Your task to perform on an android device: Add "rayovac triple a" to the cart on amazon Image 0: 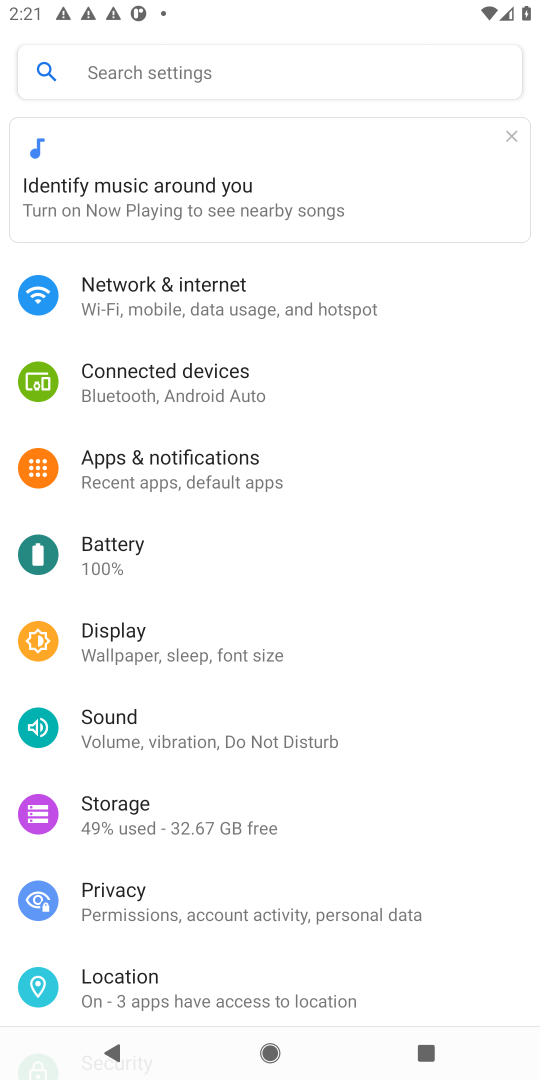
Step 0: press home button
Your task to perform on an android device: Add "rayovac triple a" to the cart on amazon Image 1: 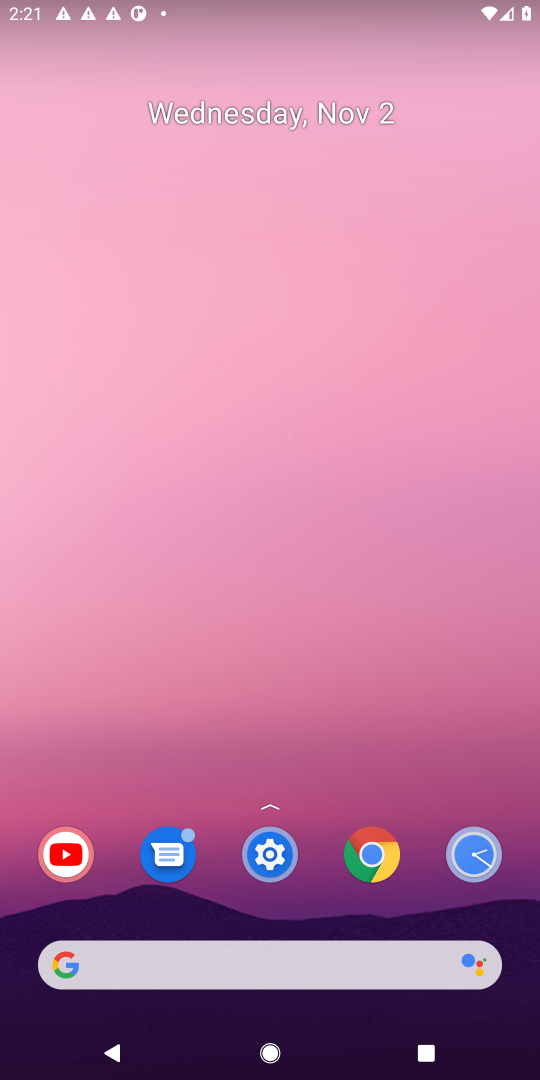
Step 1: click (289, 944)
Your task to perform on an android device: Add "rayovac triple a" to the cart on amazon Image 2: 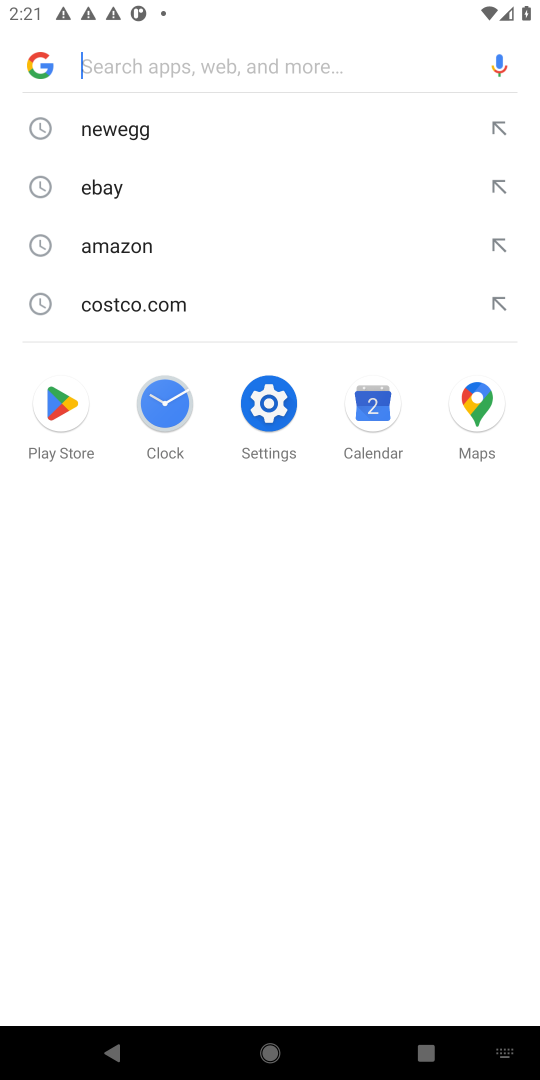
Step 2: type "amazon"
Your task to perform on an android device: Add "rayovac triple a" to the cart on amazon Image 3: 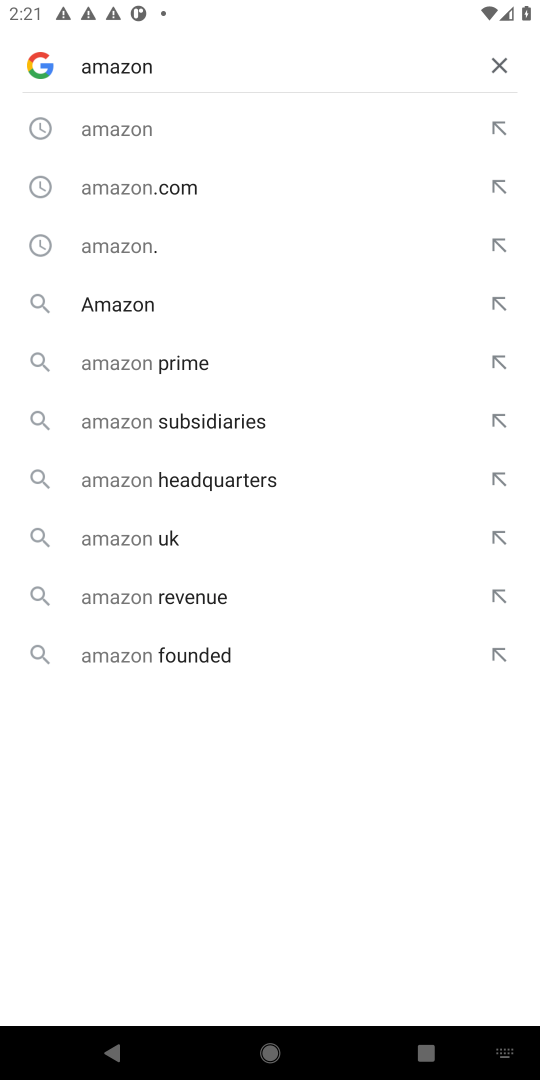
Step 3: press enter
Your task to perform on an android device: Add "rayovac triple a" to the cart on amazon Image 4: 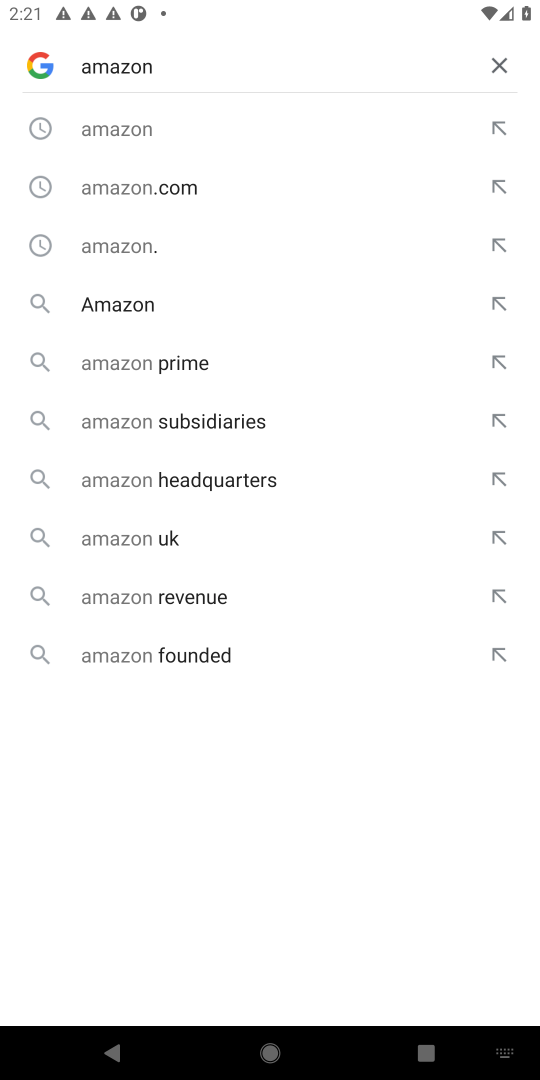
Step 4: type ""
Your task to perform on an android device: Add "rayovac triple a" to the cart on amazon Image 5: 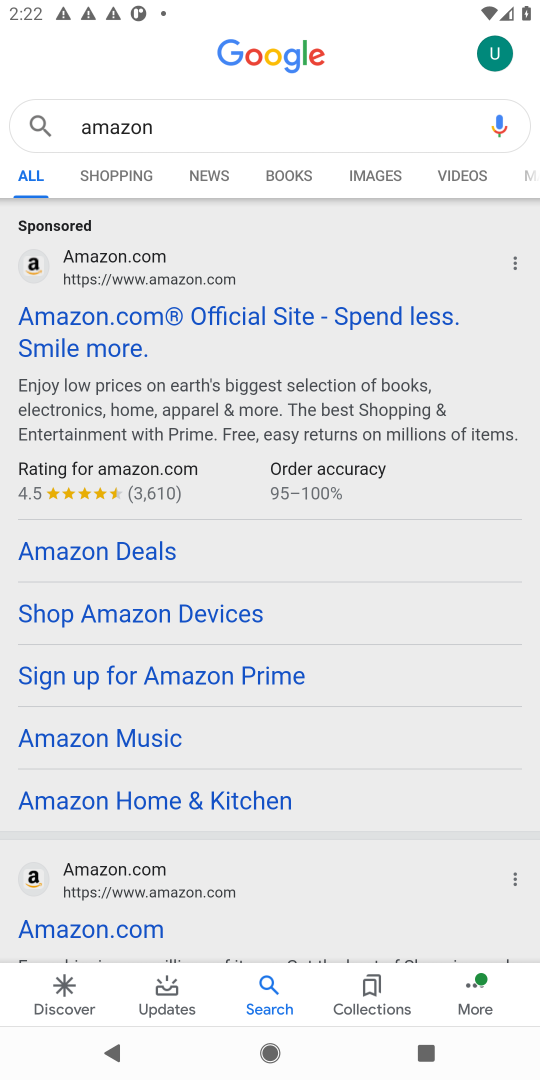
Step 5: click (114, 353)
Your task to perform on an android device: Add "rayovac triple a" to the cart on amazon Image 6: 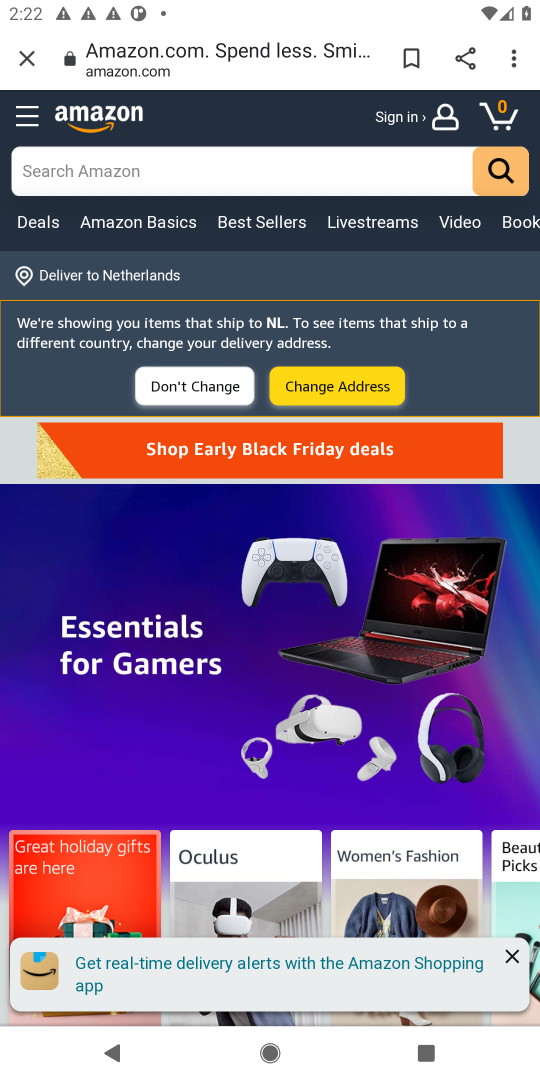
Step 6: click (147, 182)
Your task to perform on an android device: Add "rayovac triple a" to the cart on amazon Image 7: 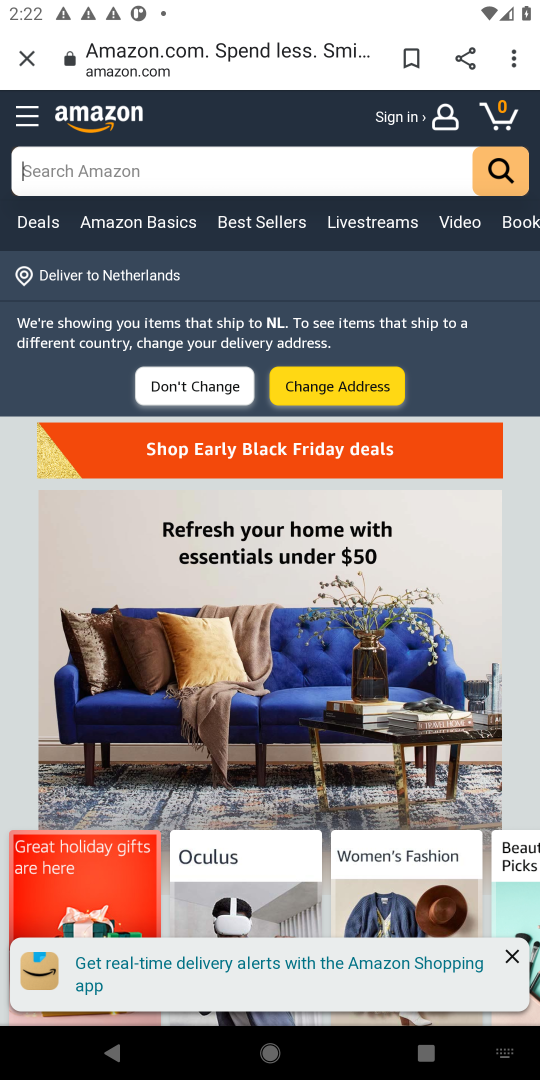
Step 7: click (152, 171)
Your task to perform on an android device: Add "rayovac triple a" to the cart on amazon Image 8: 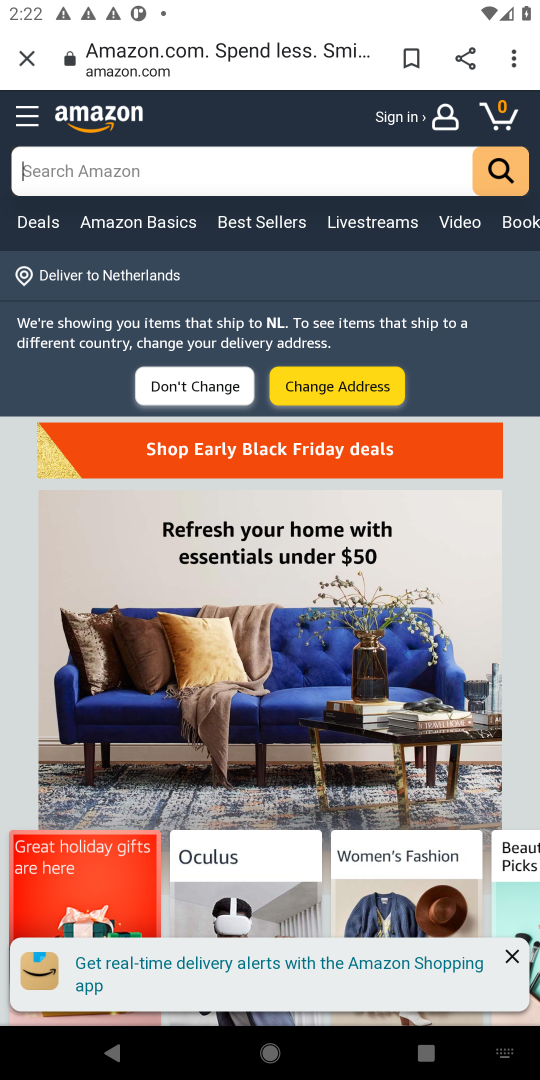
Step 8: click (152, 171)
Your task to perform on an android device: Add "rayovac triple a" to the cart on amazon Image 9: 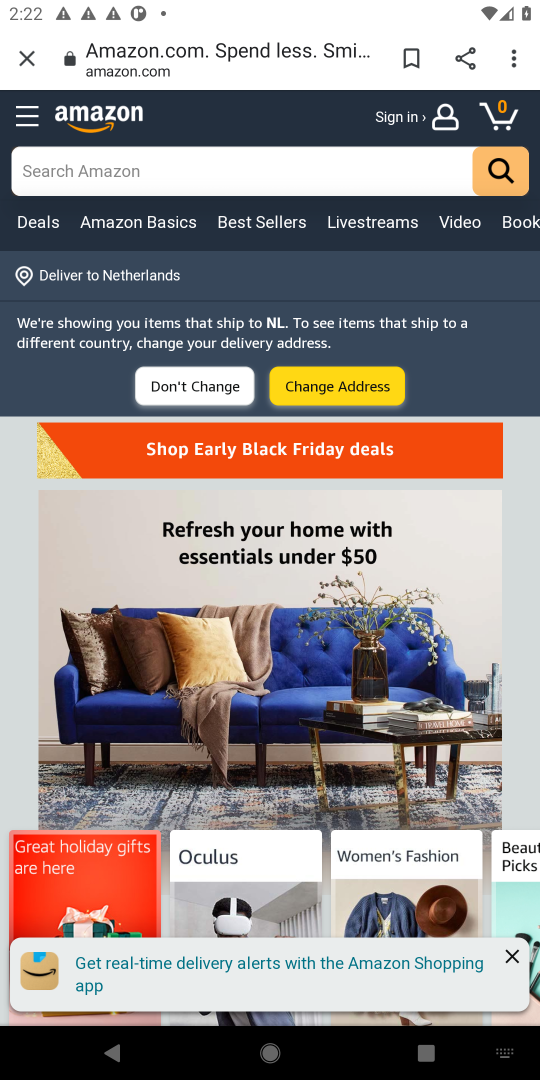
Step 9: type "rayovac triple a"
Your task to perform on an android device: Add "rayovac triple a" to the cart on amazon Image 10: 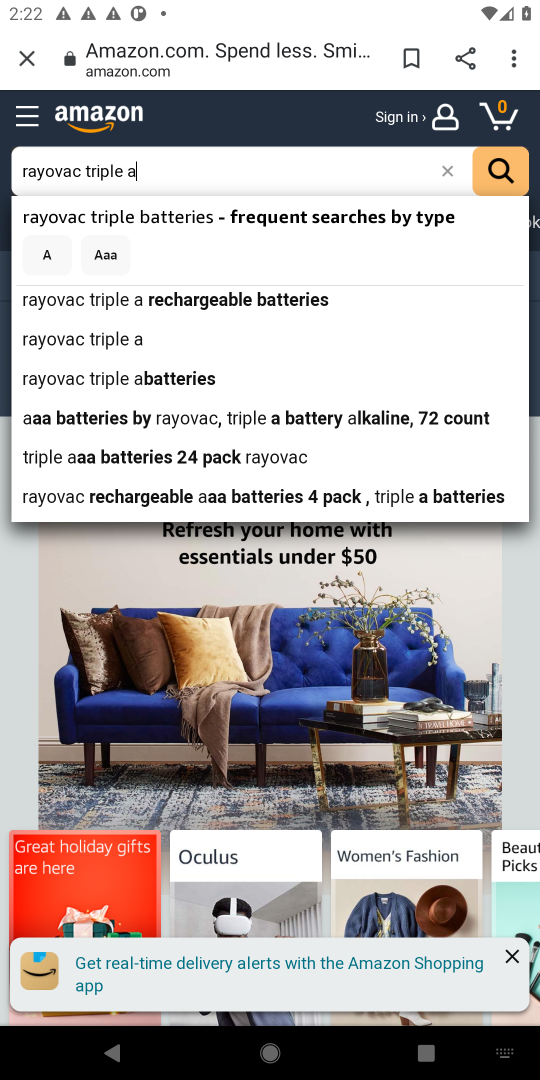
Step 10: press enter
Your task to perform on an android device: Add "rayovac triple a" to the cart on amazon Image 11: 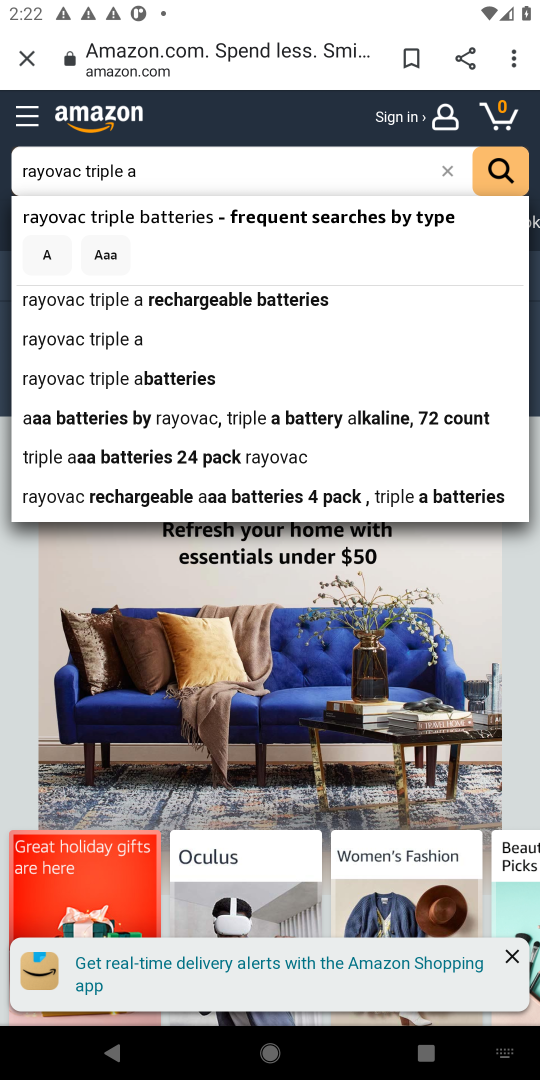
Step 11: type ""
Your task to perform on an android device: Add "rayovac triple a" to the cart on amazon Image 12: 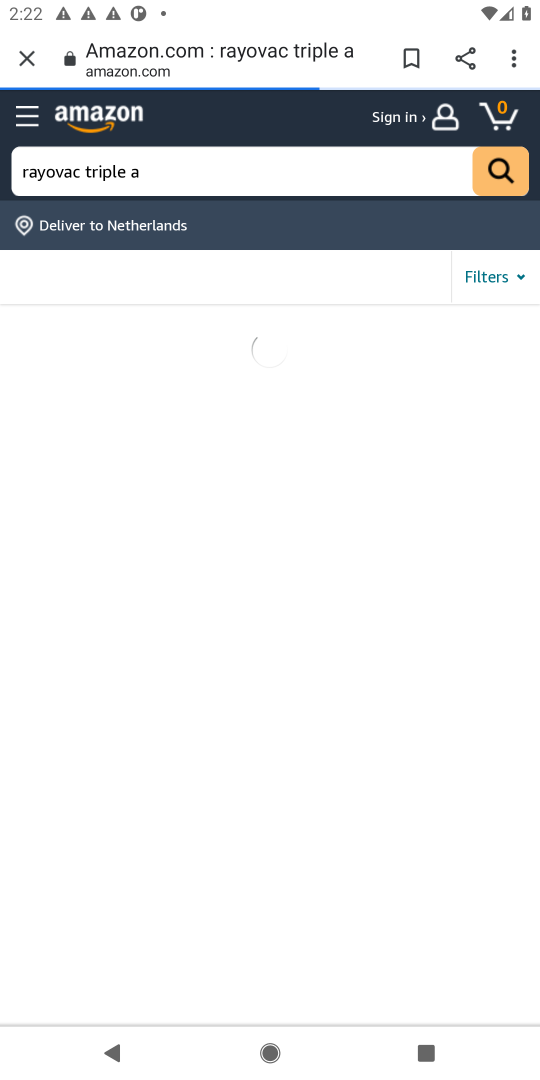
Step 12: press enter
Your task to perform on an android device: Add "rayovac triple a" to the cart on amazon Image 13: 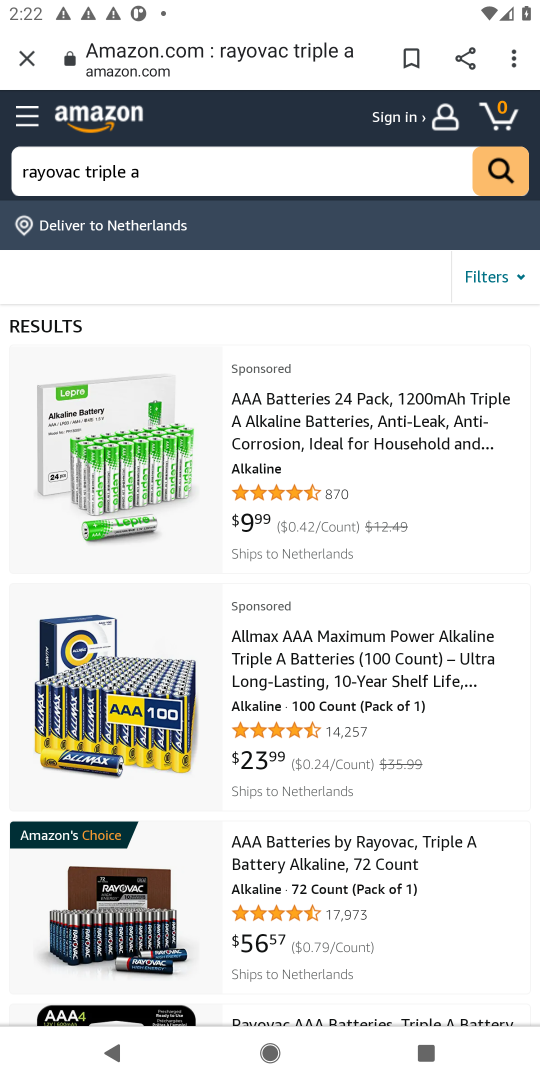
Step 13: click (307, 437)
Your task to perform on an android device: Add "rayovac triple a" to the cart on amazon Image 14: 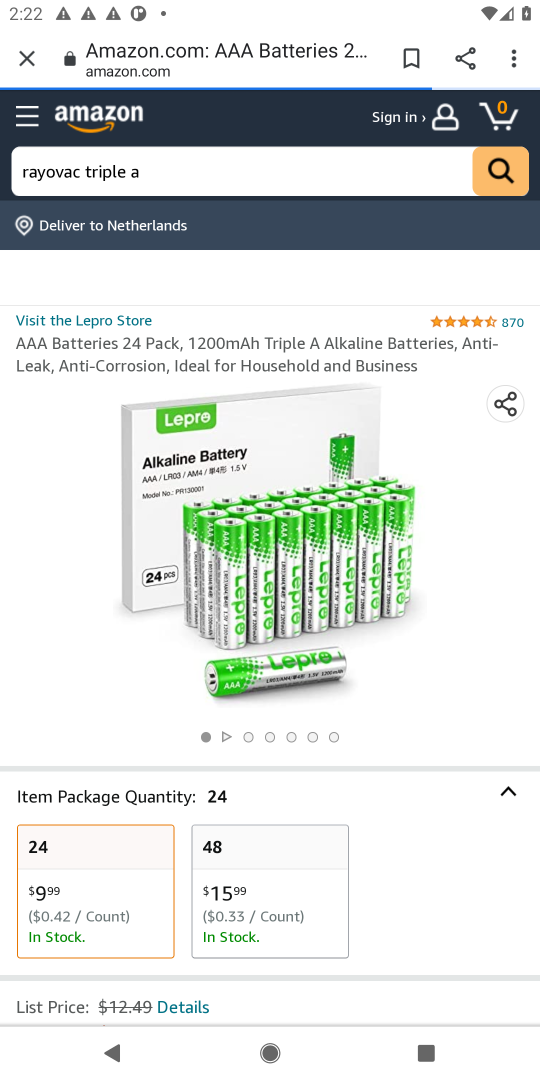
Step 14: drag from (437, 897) to (343, 307)
Your task to perform on an android device: Add "rayovac triple a" to the cart on amazon Image 15: 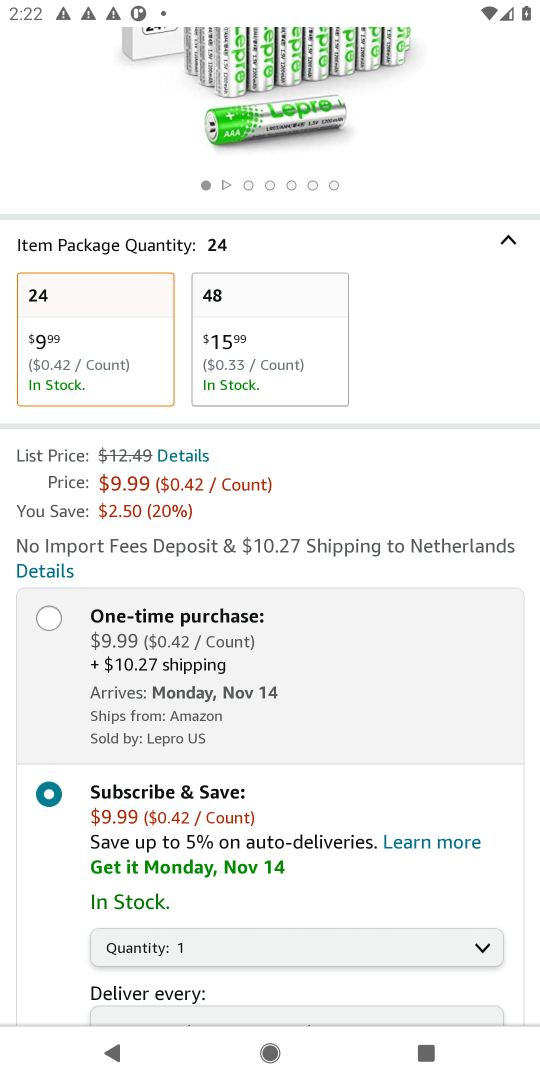
Step 15: drag from (378, 746) to (367, 320)
Your task to perform on an android device: Add "rayovac triple a" to the cart on amazon Image 16: 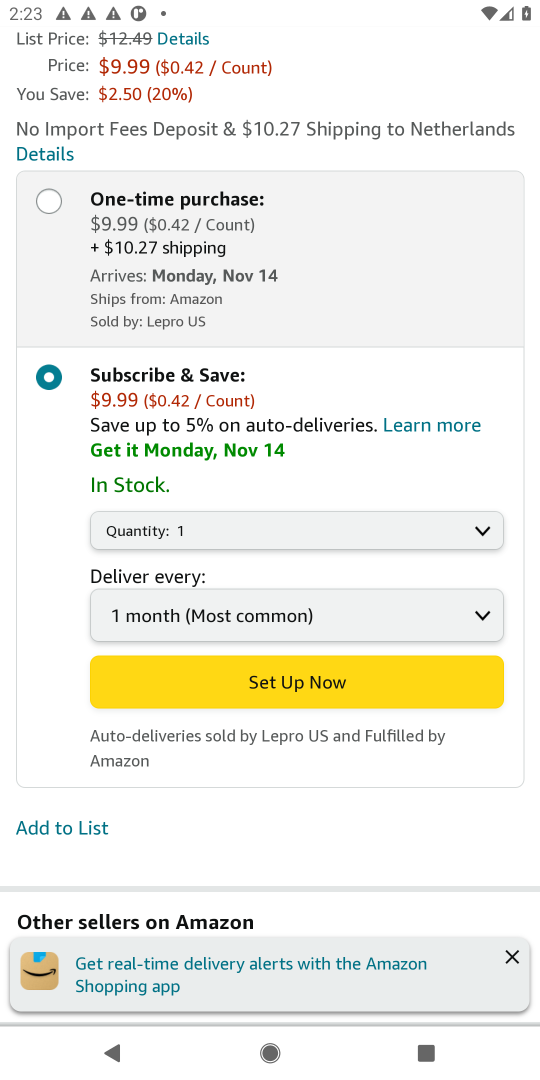
Step 16: click (330, 687)
Your task to perform on an android device: Add "rayovac triple a" to the cart on amazon Image 17: 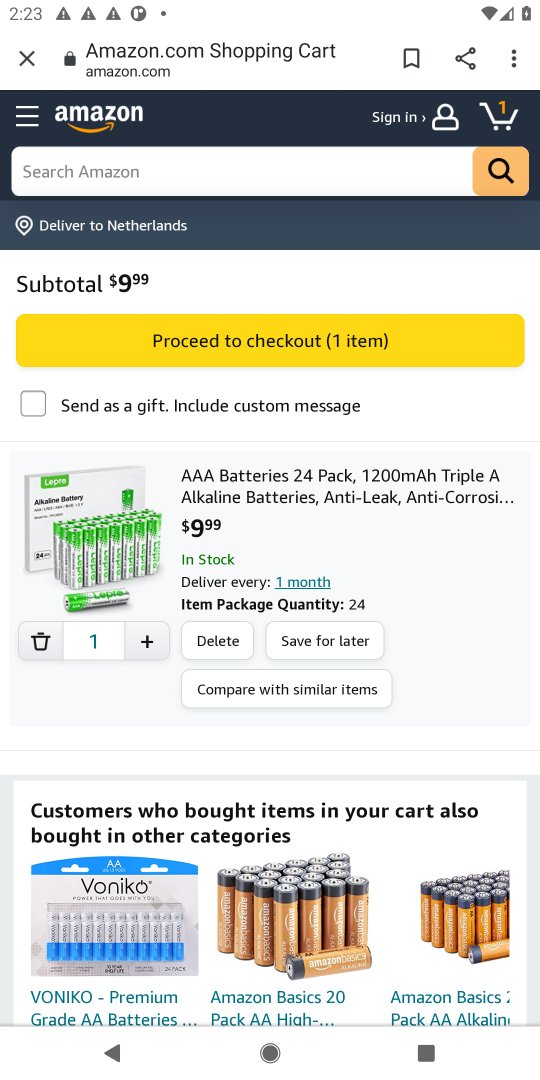
Step 17: task complete